Your task to perform on an android device: add a contact in the contacts app Image 0: 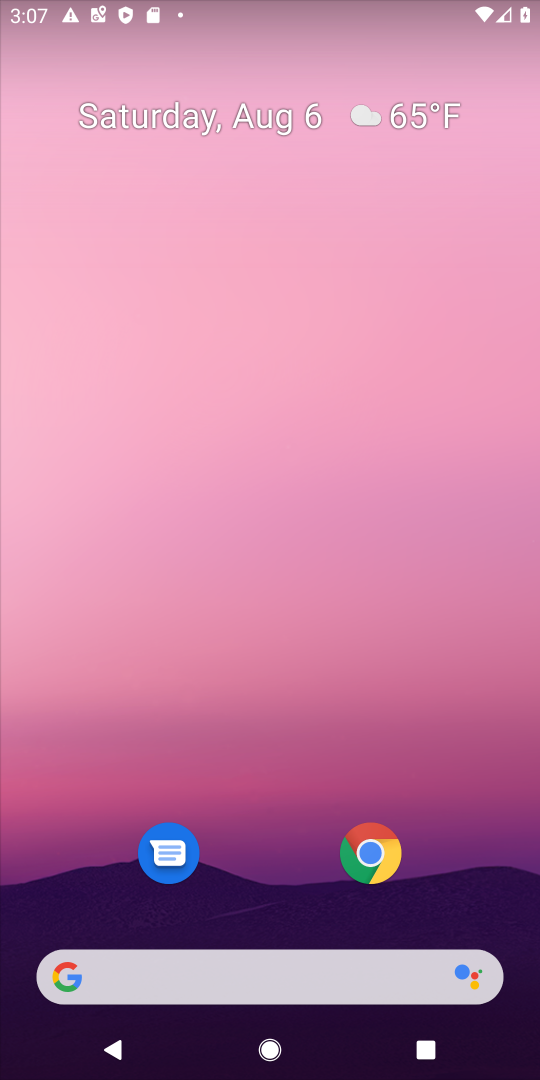
Step 0: drag from (251, 825) to (359, 140)
Your task to perform on an android device: add a contact in the contacts app Image 1: 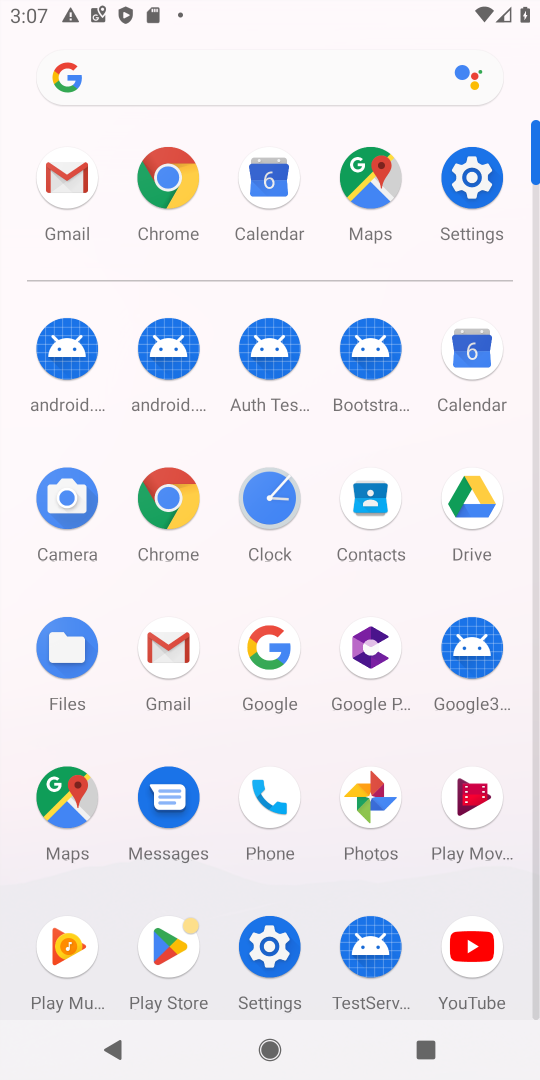
Step 1: click (371, 512)
Your task to perform on an android device: add a contact in the contacts app Image 2: 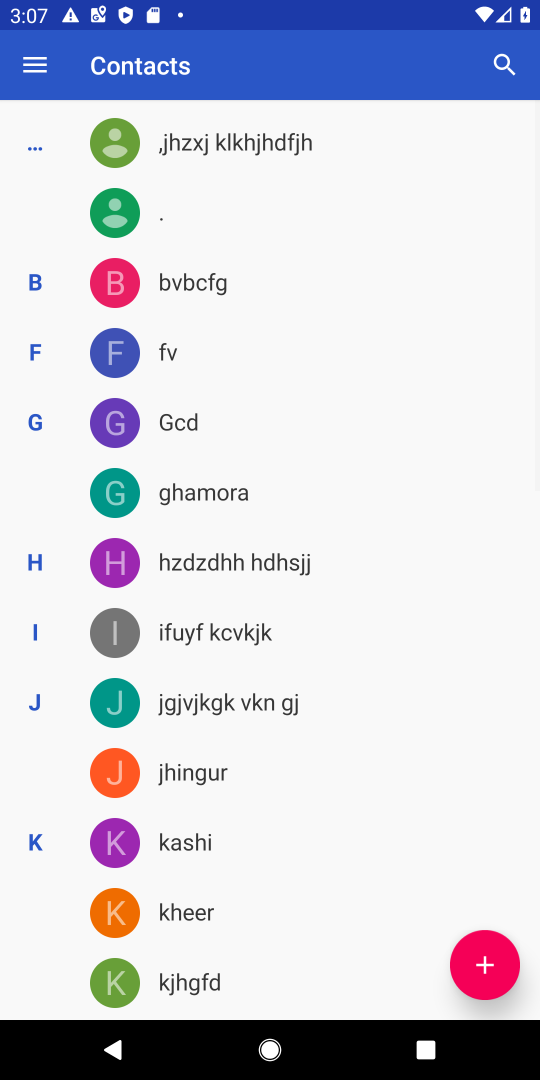
Step 2: click (494, 961)
Your task to perform on an android device: add a contact in the contacts app Image 3: 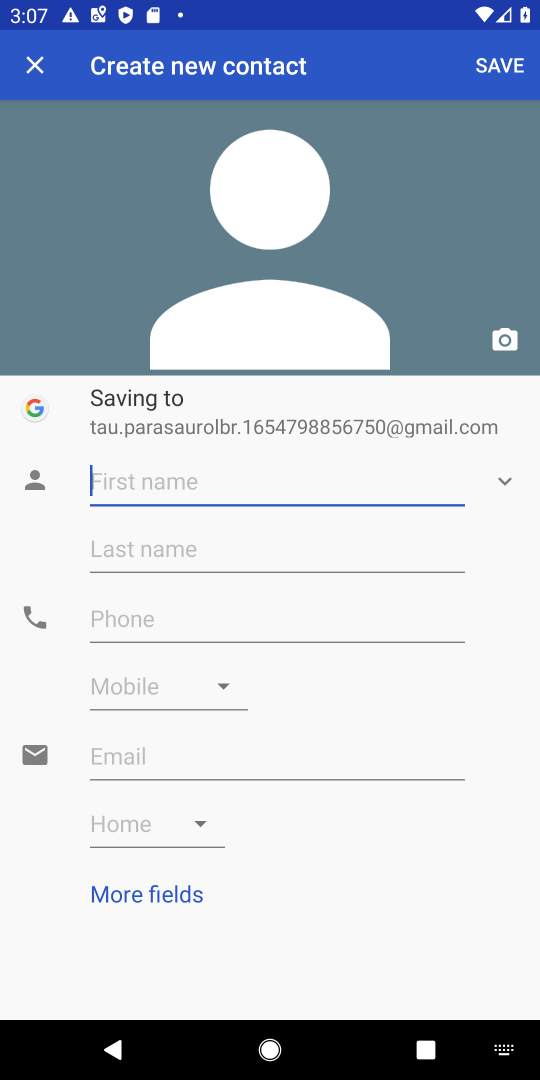
Step 3: click (129, 485)
Your task to perform on an android device: add a contact in the contacts app Image 4: 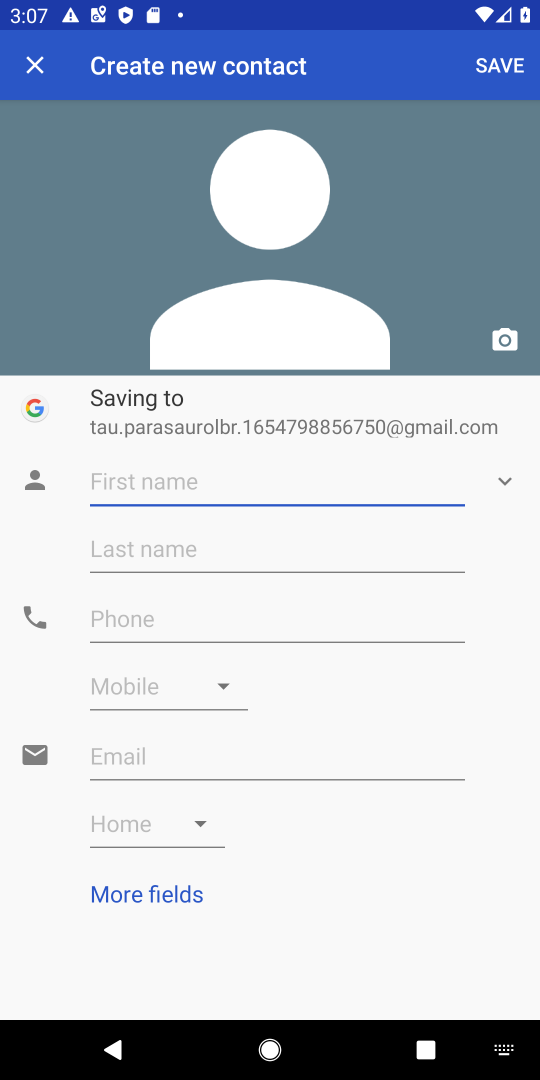
Step 4: type "6767"
Your task to perform on an android device: add a contact in the contacts app Image 5: 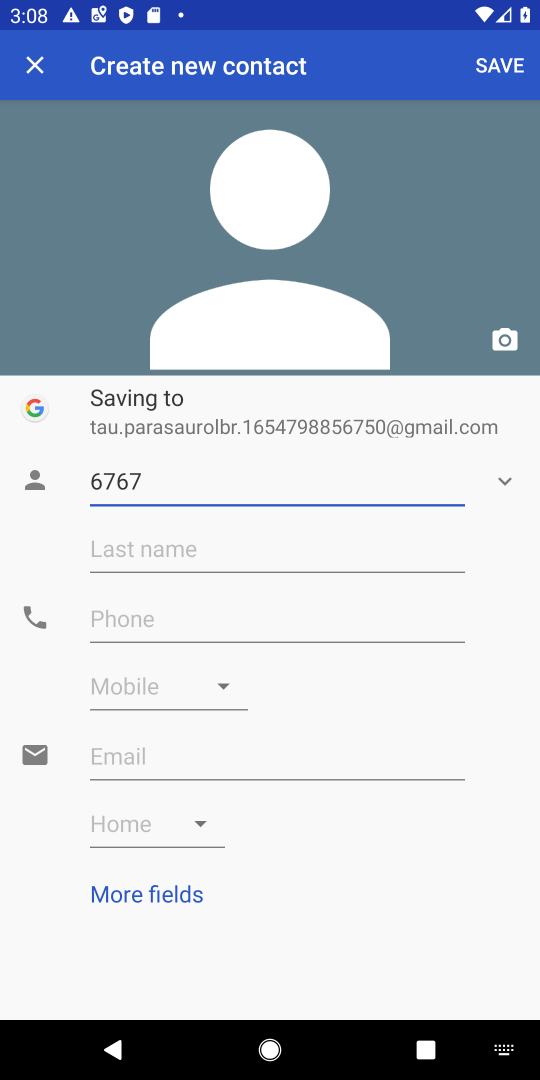
Step 5: click (121, 616)
Your task to perform on an android device: add a contact in the contacts app Image 6: 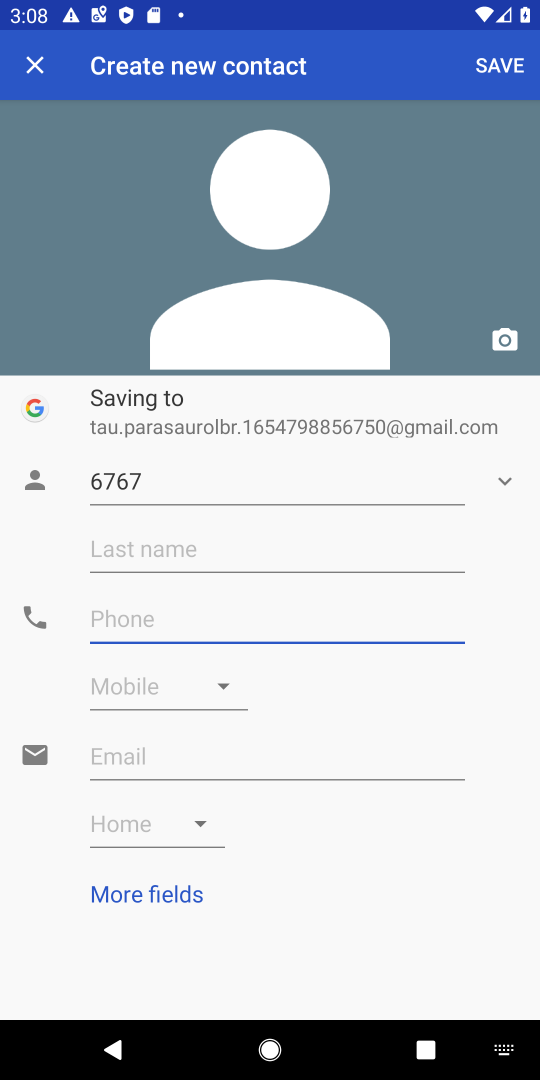
Step 6: type "8878787"
Your task to perform on an android device: add a contact in the contacts app Image 7: 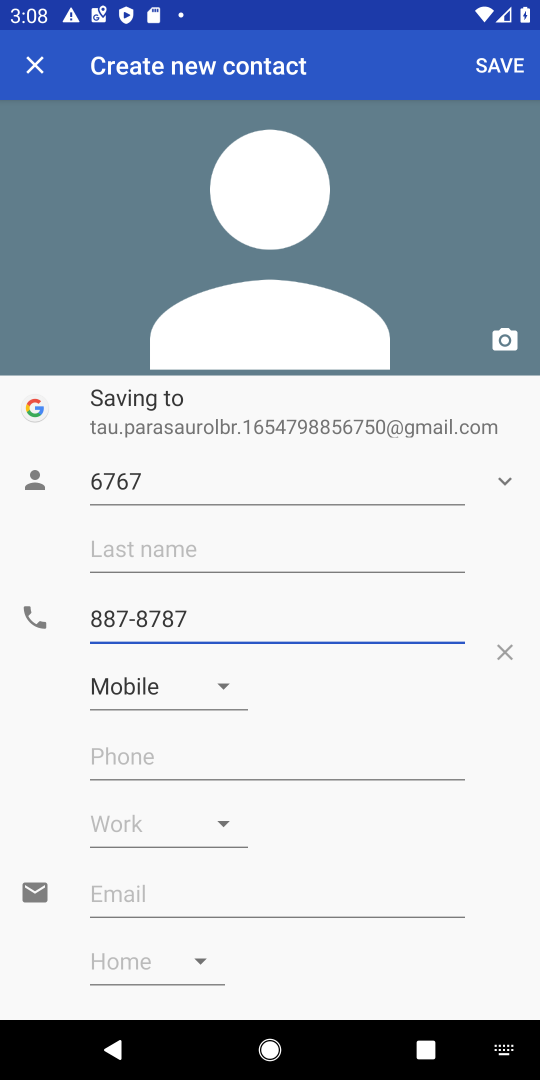
Step 7: click (503, 64)
Your task to perform on an android device: add a contact in the contacts app Image 8: 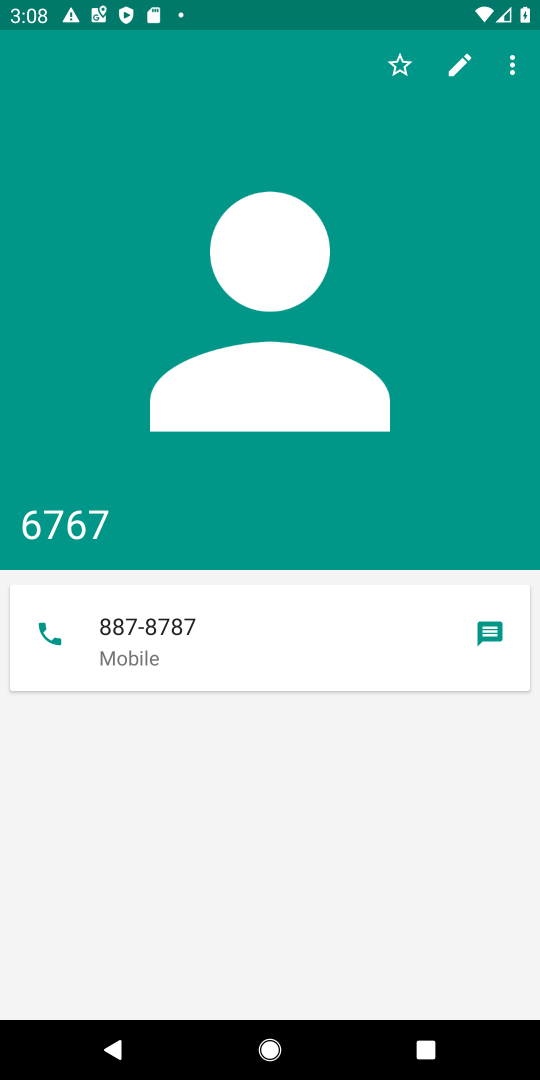
Step 8: task complete